Your task to perform on an android device: Go to Google Image 0: 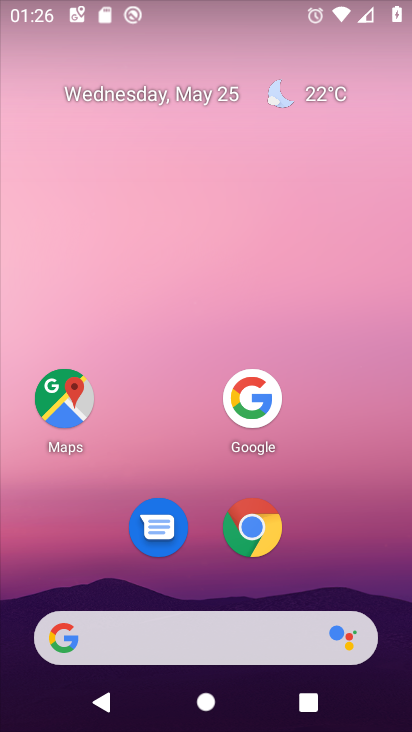
Step 0: press home button
Your task to perform on an android device: Go to Google Image 1: 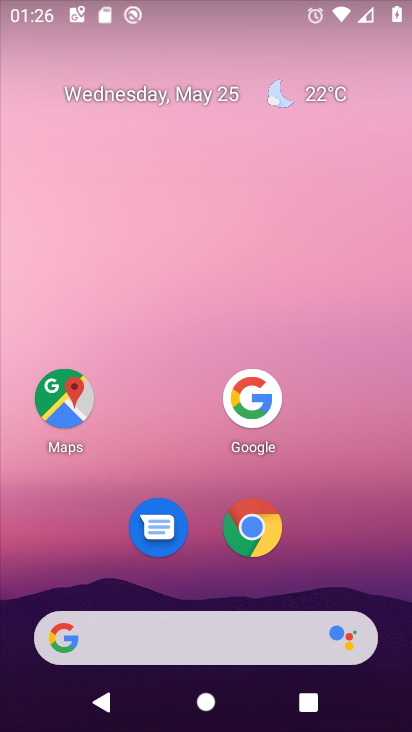
Step 1: click (257, 398)
Your task to perform on an android device: Go to Google Image 2: 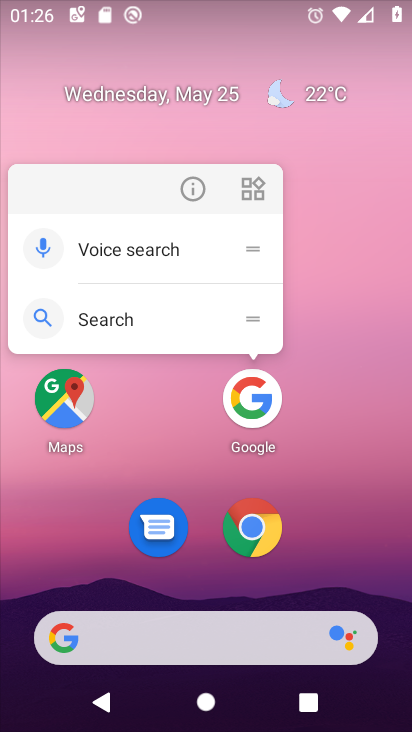
Step 2: click (264, 406)
Your task to perform on an android device: Go to Google Image 3: 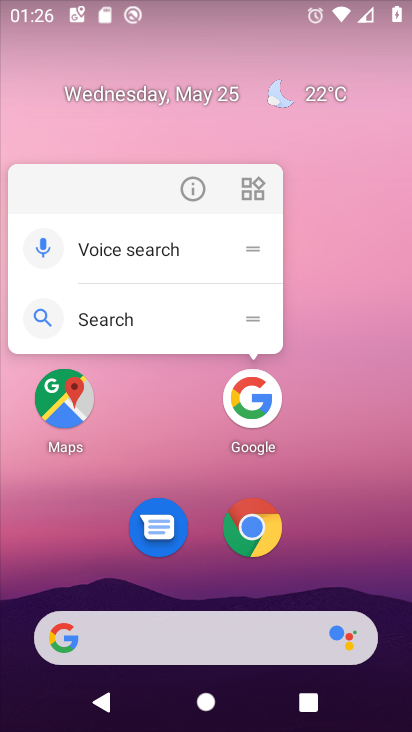
Step 3: click (265, 394)
Your task to perform on an android device: Go to Google Image 4: 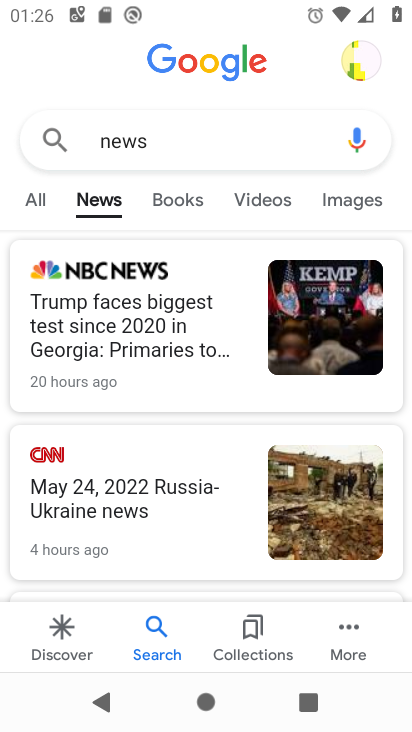
Step 4: click (73, 643)
Your task to perform on an android device: Go to Google Image 5: 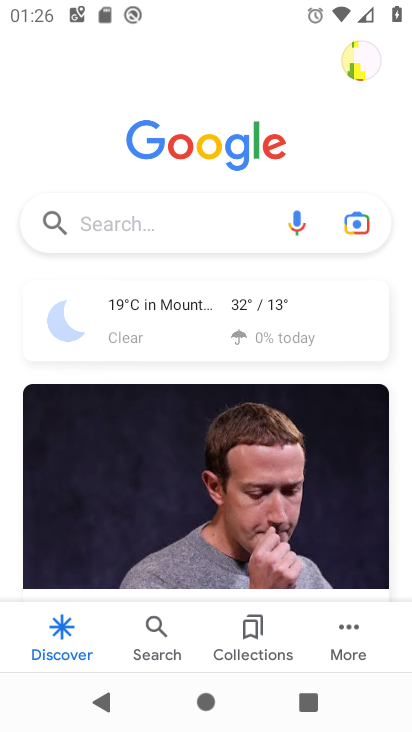
Step 5: task complete